Your task to perform on an android device: Play the last video I watched on Youtube Image 0: 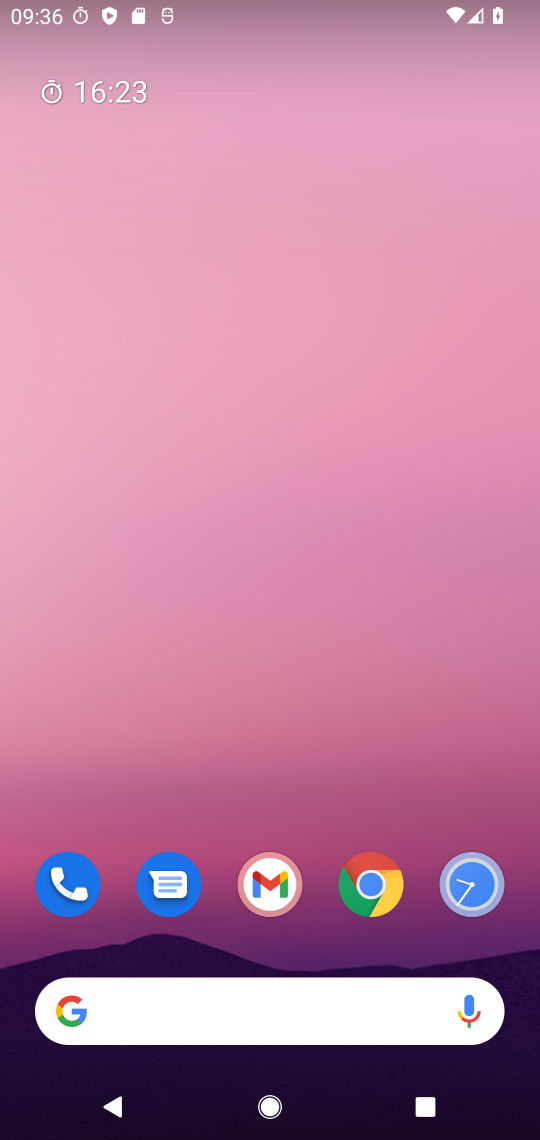
Step 0: drag from (238, 736) to (168, 183)
Your task to perform on an android device: Play the last video I watched on Youtube Image 1: 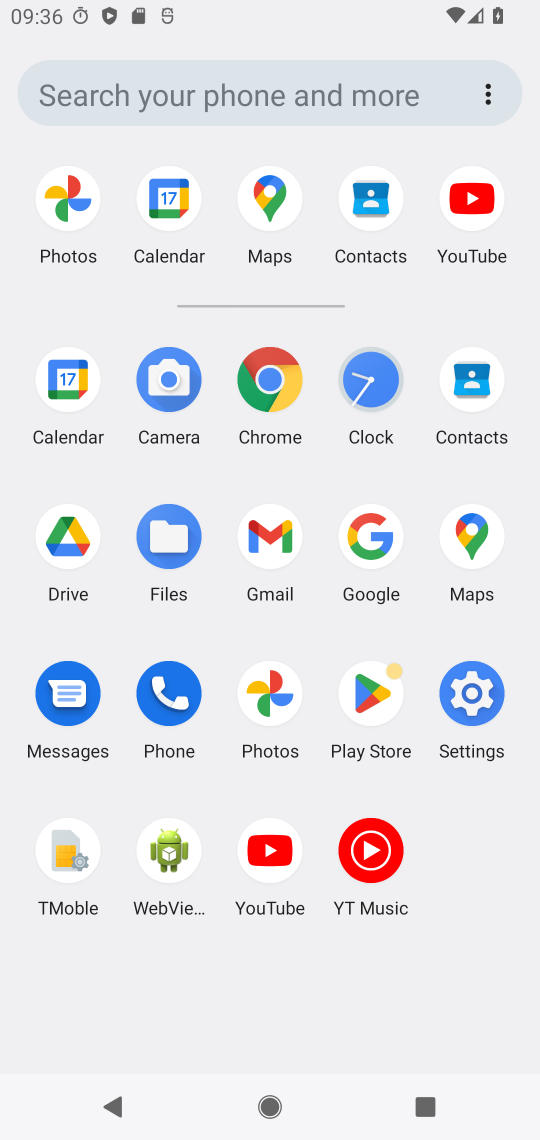
Step 1: click (460, 214)
Your task to perform on an android device: Play the last video I watched on Youtube Image 2: 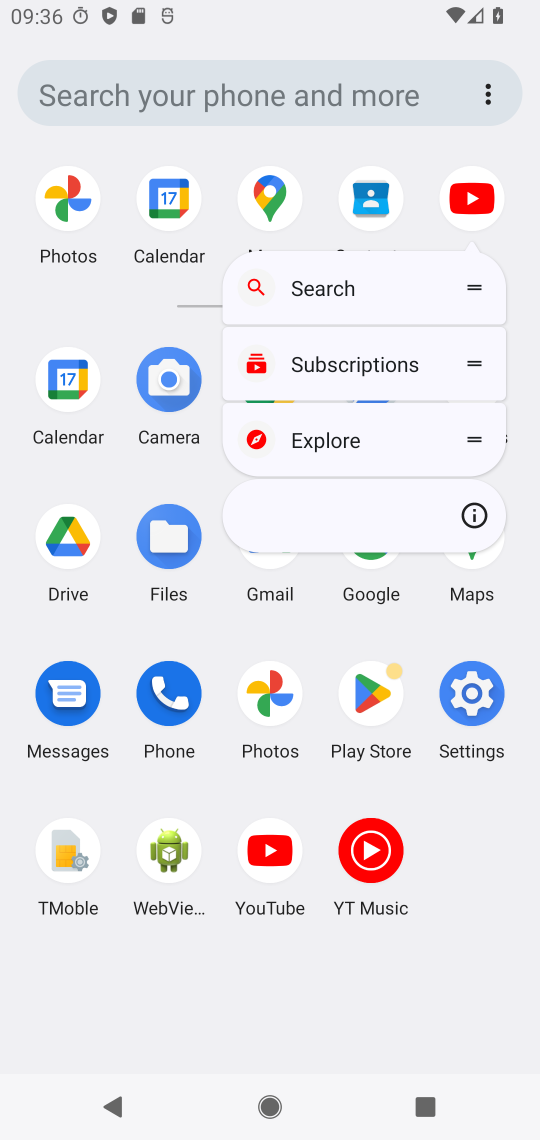
Step 2: click (474, 207)
Your task to perform on an android device: Play the last video I watched on Youtube Image 3: 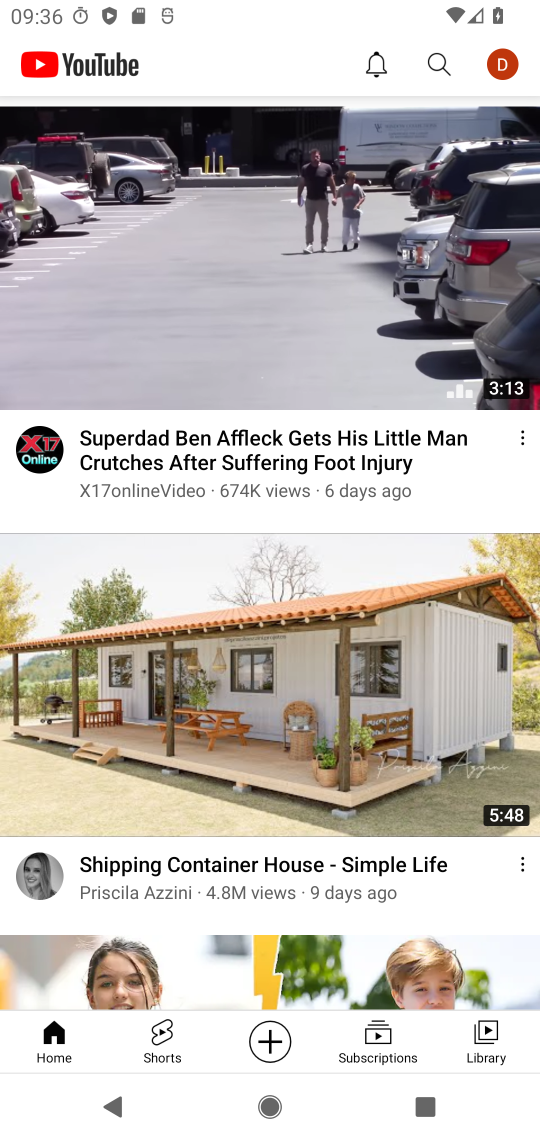
Step 3: click (483, 1018)
Your task to perform on an android device: Play the last video I watched on Youtube Image 4: 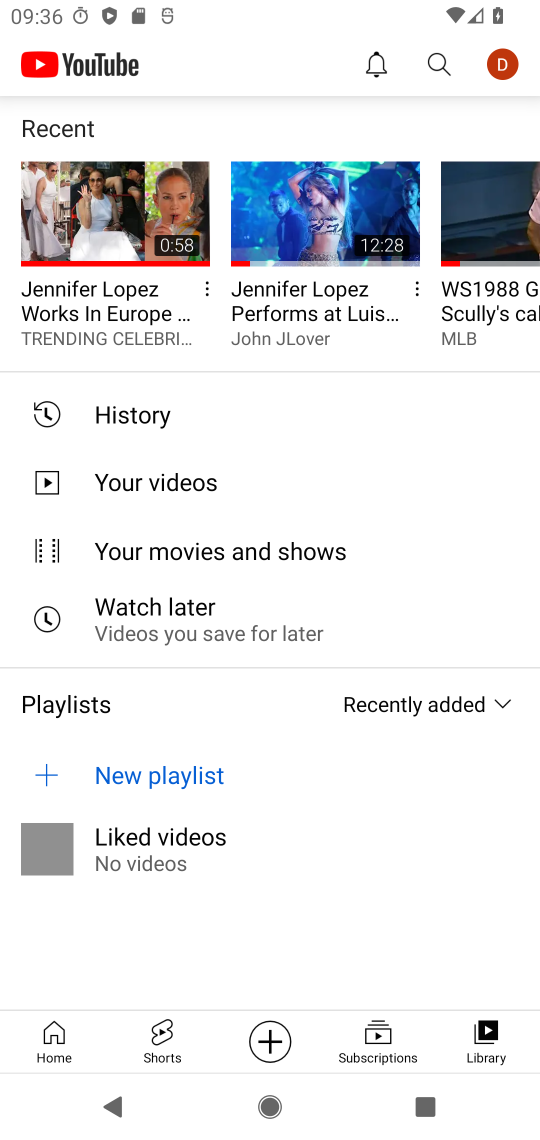
Step 4: click (91, 223)
Your task to perform on an android device: Play the last video I watched on Youtube Image 5: 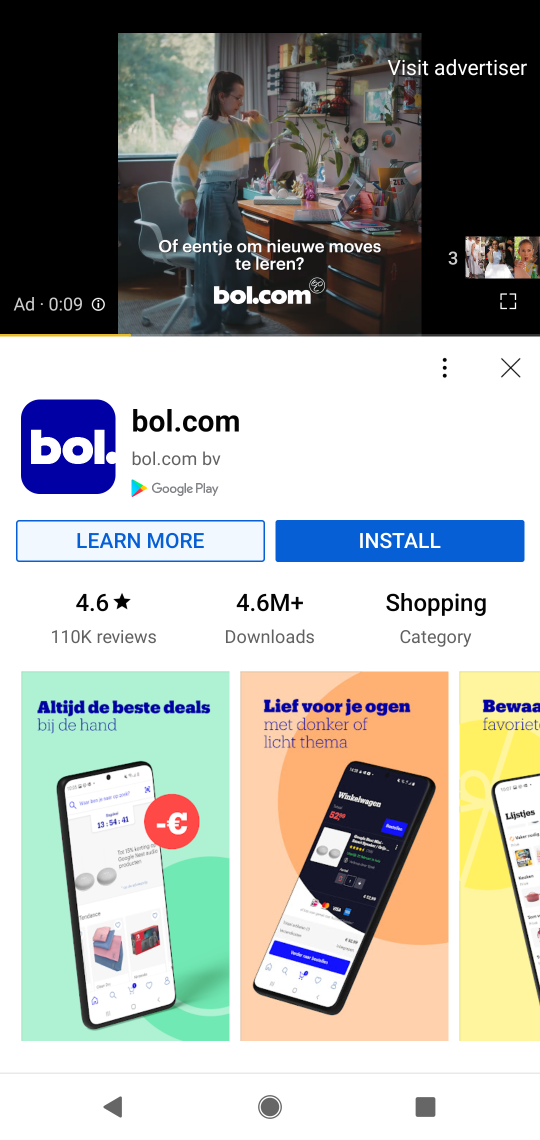
Step 5: click (274, 199)
Your task to perform on an android device: Play the last video I watched on Youtube Image 6: 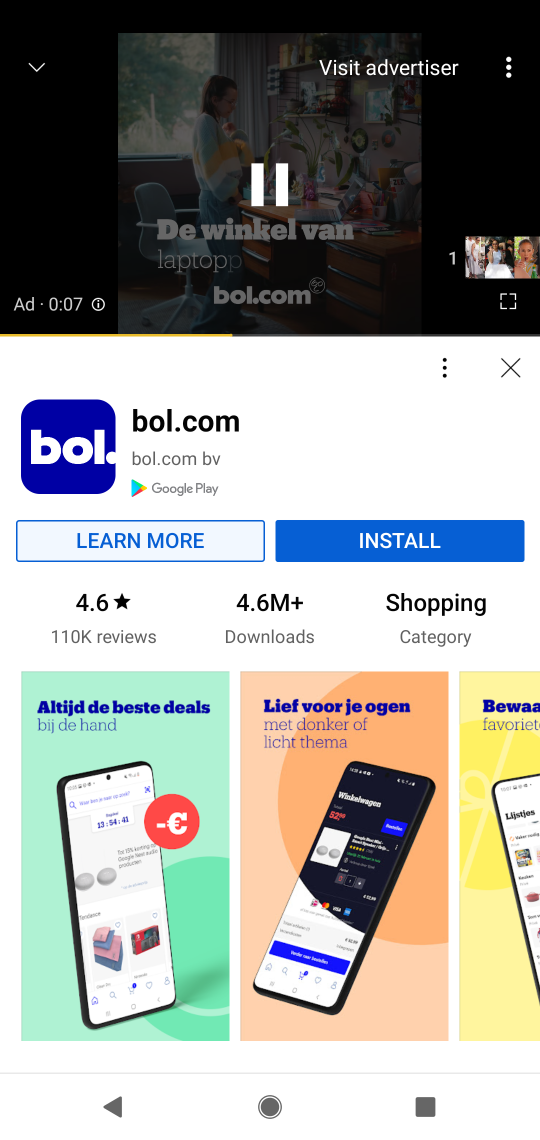
Step 6: click (283, 187)
Your task to perform on an android device: Play the last video I watched on Youtube Image 7: 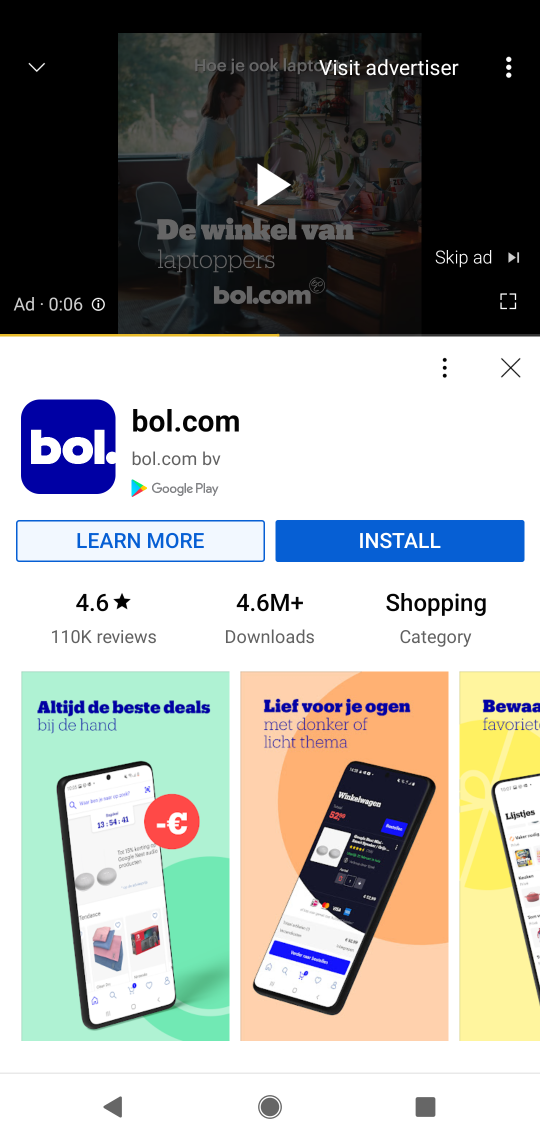
Step 7: task complete